Your task to perform on an android device: Clear all items from cart on walmart. Image 0: 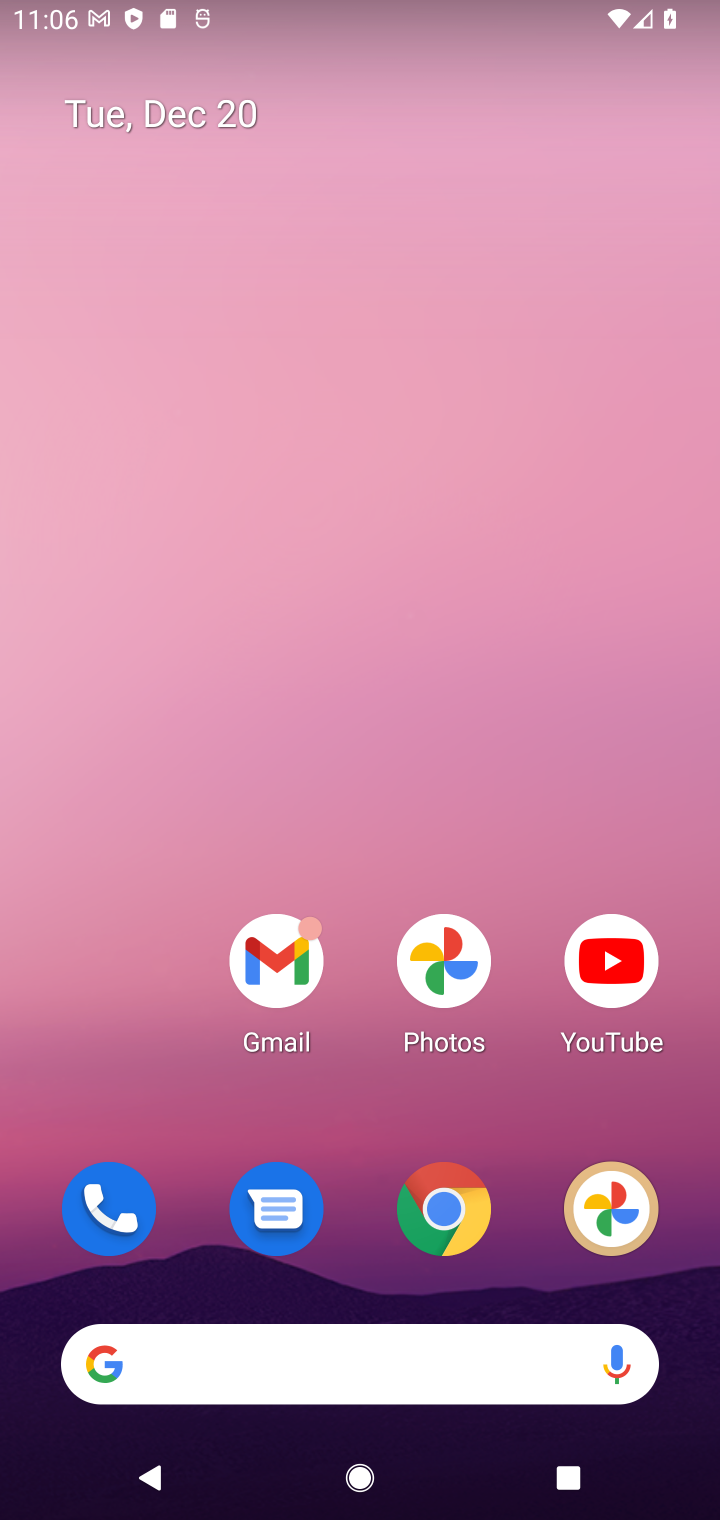
Step 0: click (454, 1204)
Your task to perform on an android device: Clear all items from cart on walmart. Image 1: 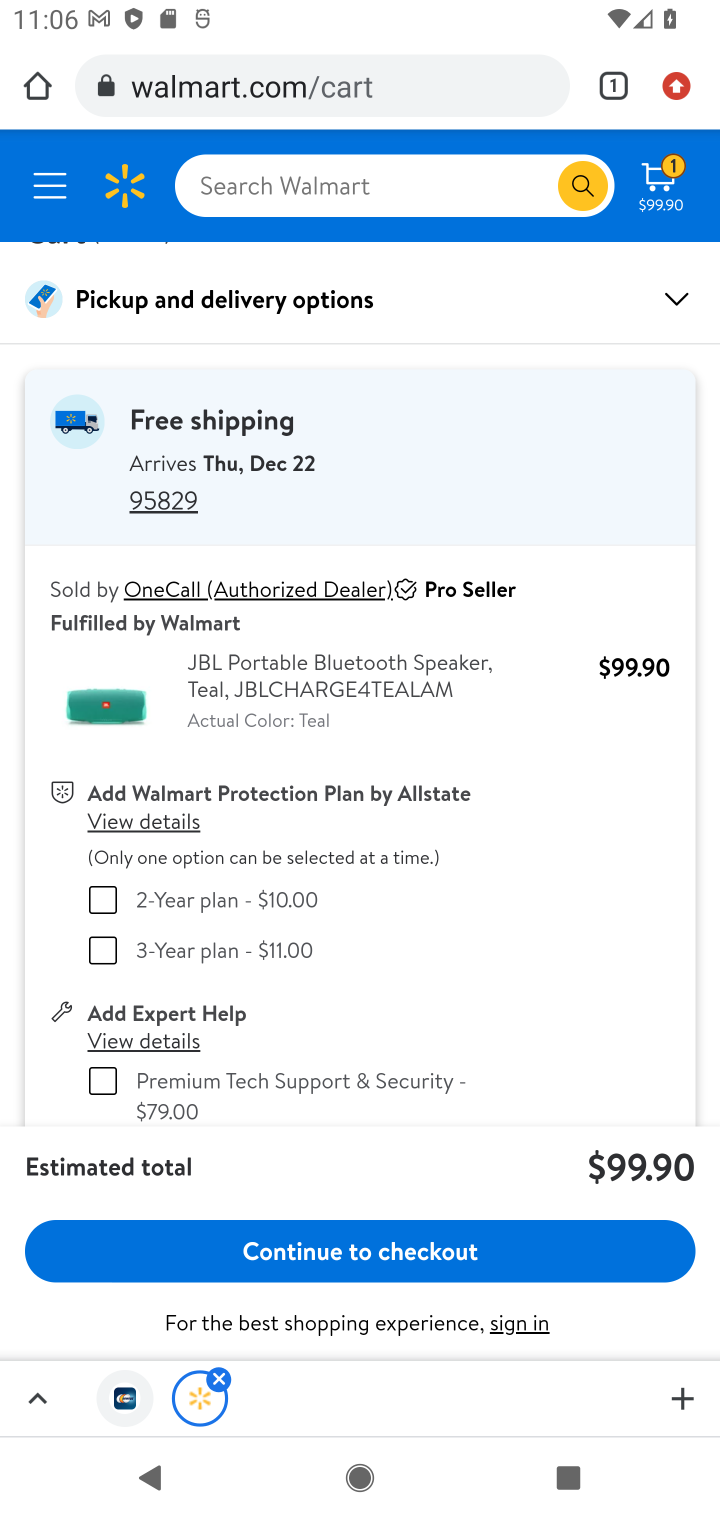
Step 1: drag from (351, 944) to (304, 548)
Your task to perform on an android device: Clear all items from cart on walmart. Image 2: 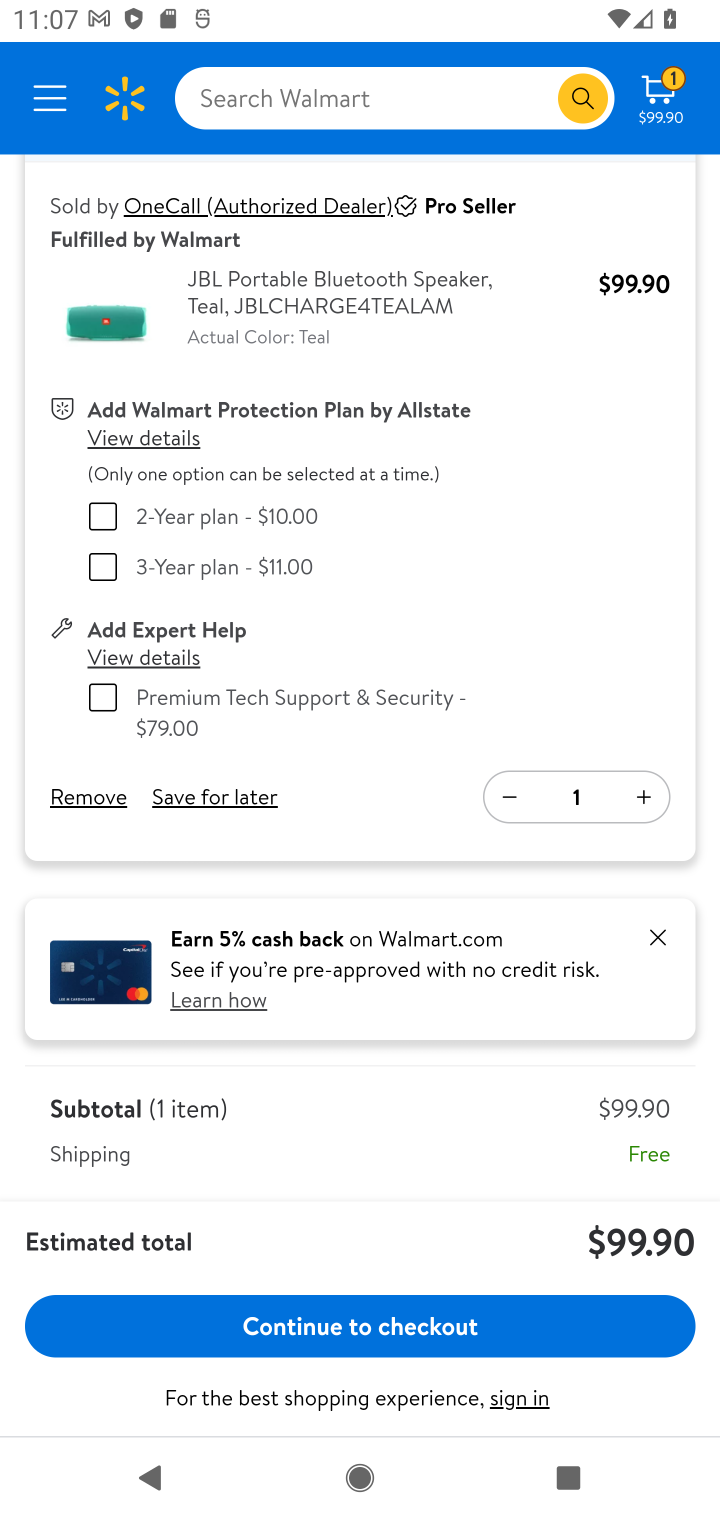
Step 2: click (87, 806)
Your task to perform on an android device: Clear all items from cart on walmart. Image 3: 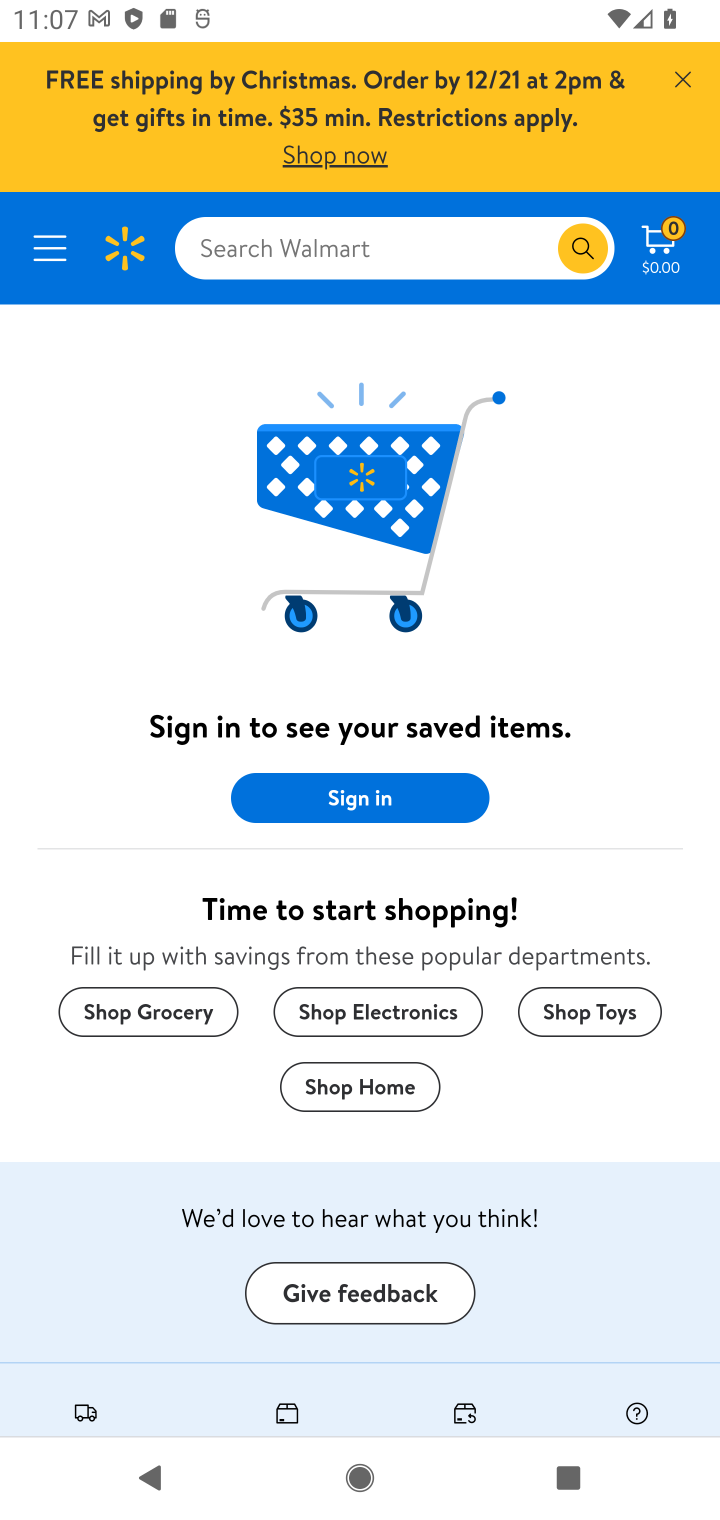
Step 3: task complete